Your task to perform on an android device: View the shopping cart on ebay.com. Search for "lg ultragear" on ebay.com, select the first entry, add it to the cart, then select checkout. Image 0: 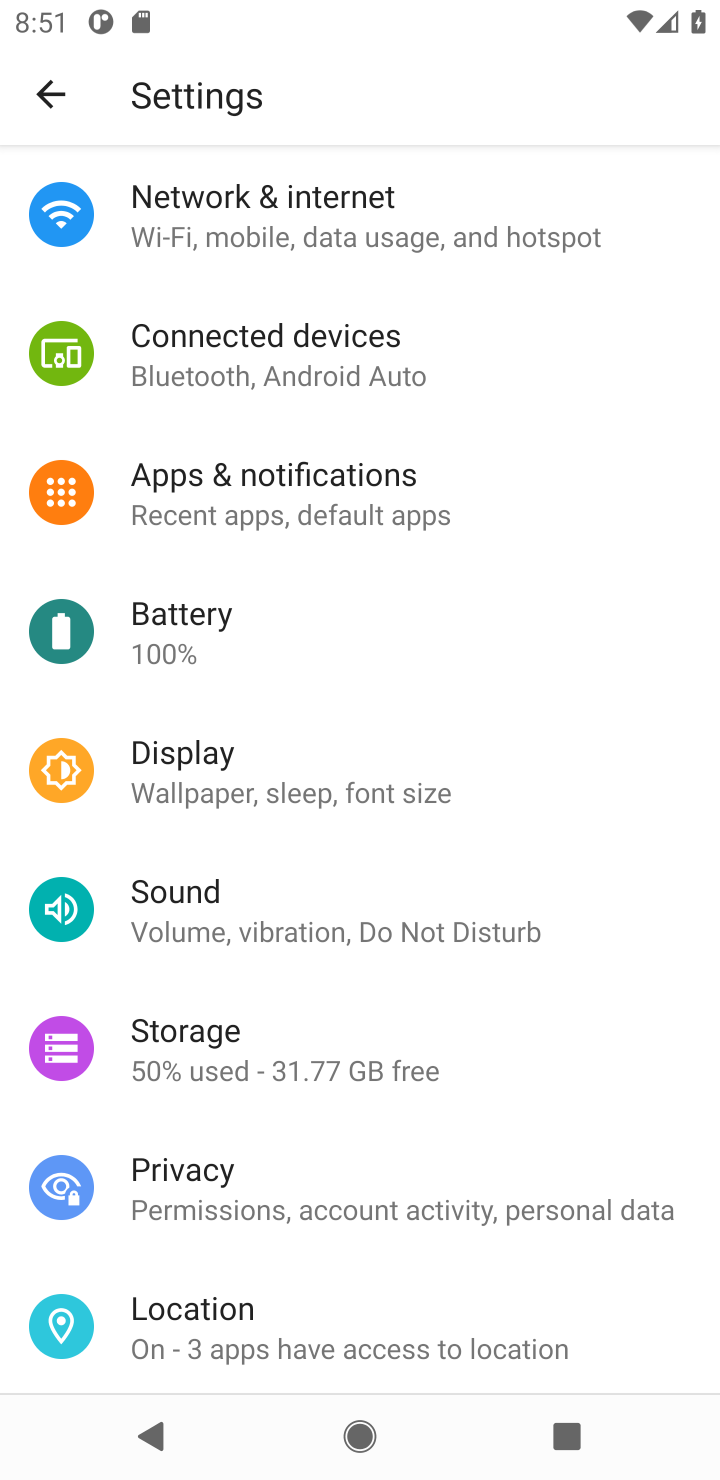
Step 0: press home button
Your task to perform on an android device: View the shopping cart on ebay.com. Search for "lg ultragear" on ebay.com, select the first entry, add it to the cart, then select checkout. Image 1: 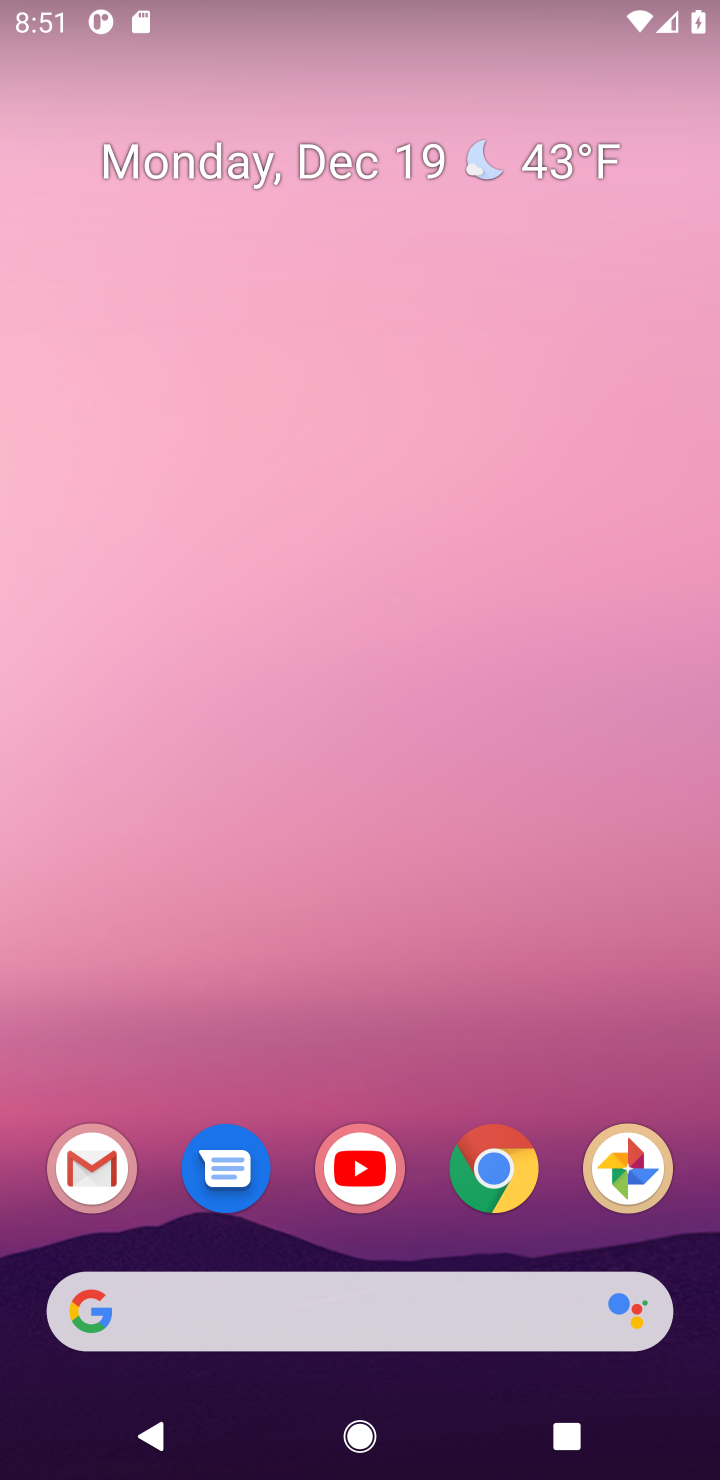
Step 1: click (506, 1176)
Your task to perform on an android device: View the shopping cart on ebay.com. Search for "lg ultragear" on ebay.com, select the first entry, add it to the cart, then select checkout. Image 2: 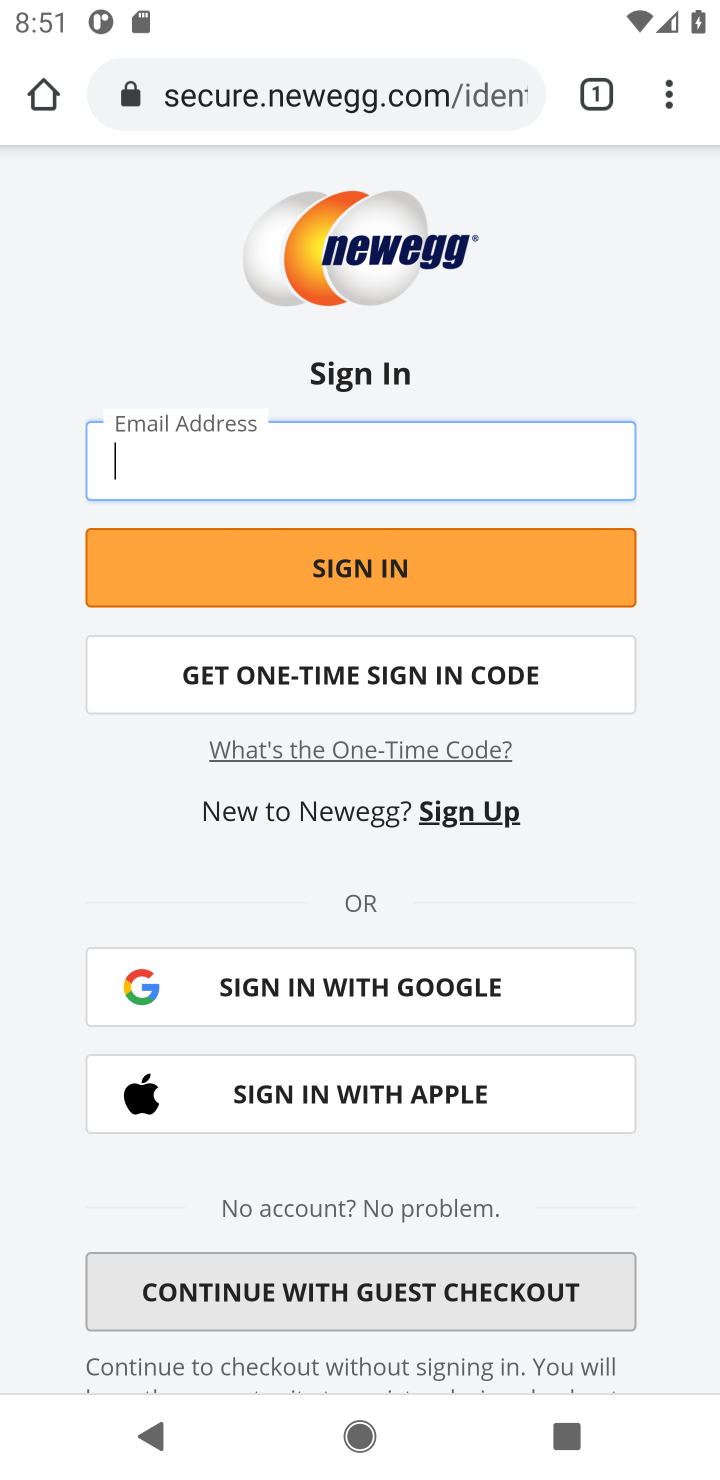
Step 2: click (278, 97)
Your task to perform on an android device: View the shopping cart on ebay.com. Search for "lg ultragear" on ebay.com, select the first entry, add it to the cart, then select checkout. Image 3: 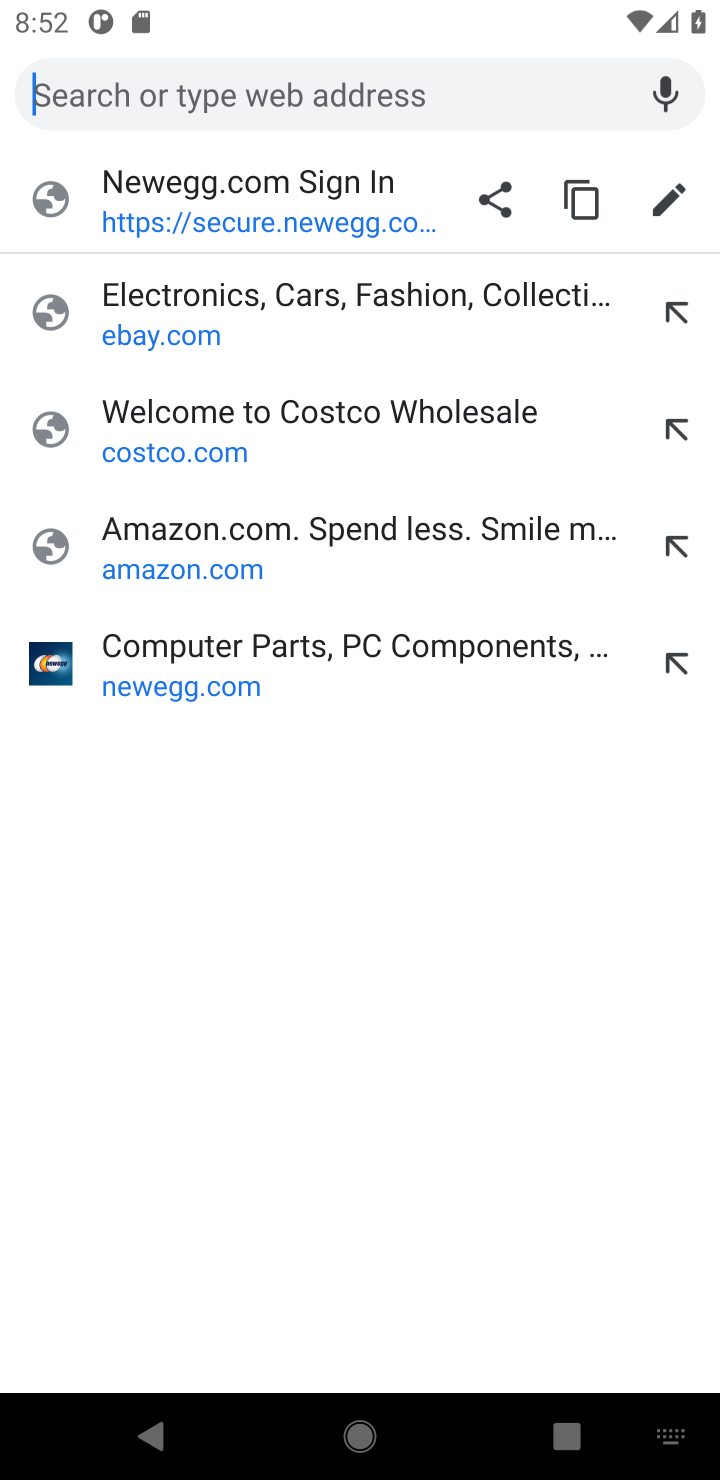
Step 3: click (116, 344)
Your task to perform on an android device: View the shopping cart on ebay.com. Search for "lg ultragear" on ebay.com, select the first entry, add it to the cart, then select checkout. Image 4: 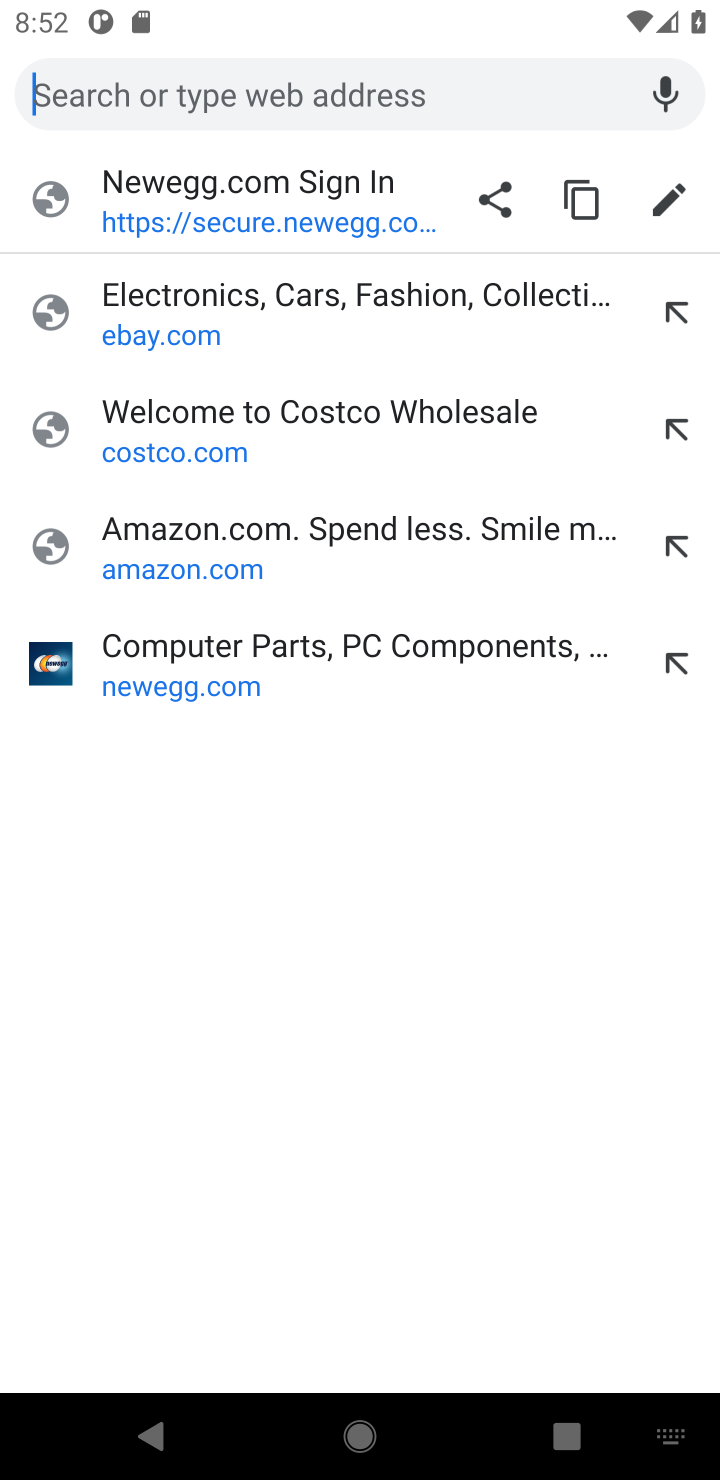
Step 4: click (151, 336)
Your task to perform on an android device: View the shopping cart on ebay.com. Search for "lg ultragear" on ebay.com, select the first entry, add it to the cart, then select checkout. Image 5: 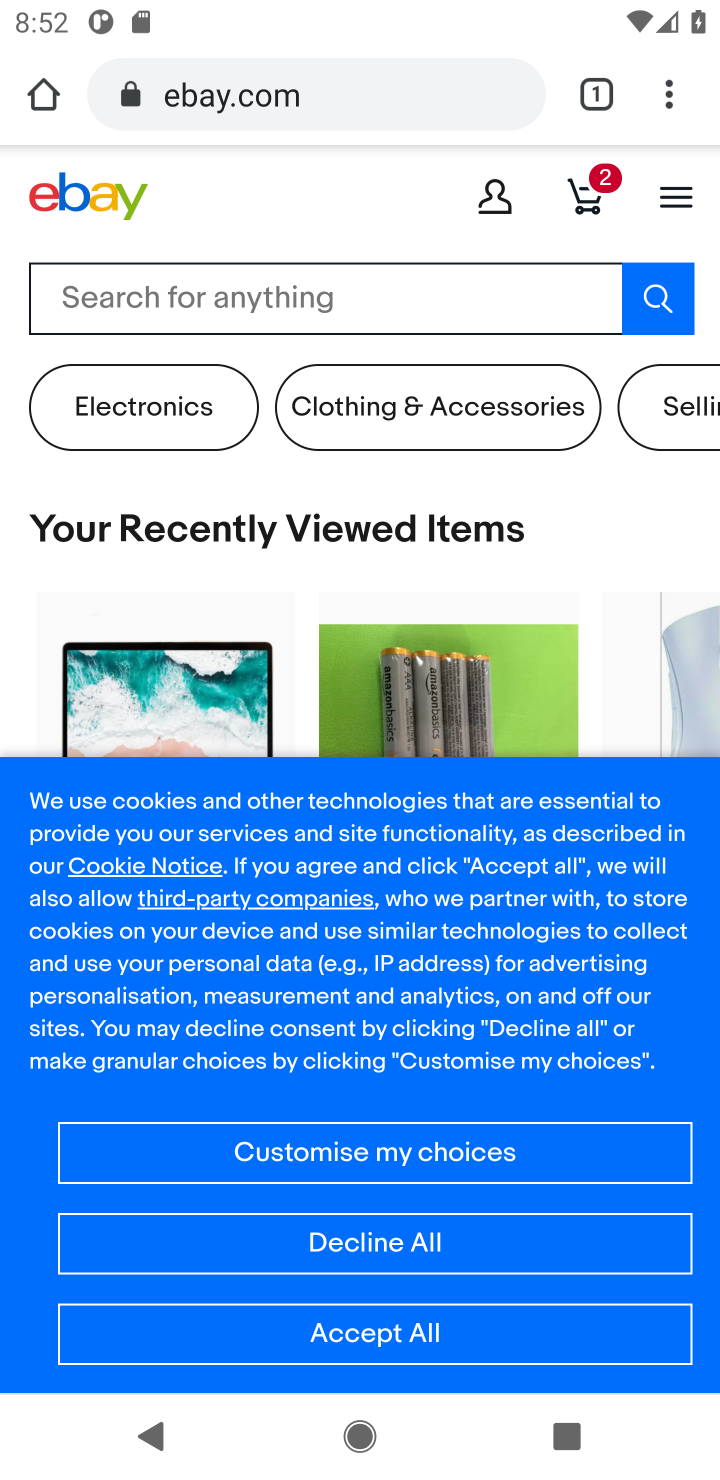
Step 5: click (578, 213)
Your task to perform on an android device: View the shopping cart on ebay.com. Search for "lg ultragear" on ebay.com, select the first entry, add it to the cart, then select checkout. Image 6: 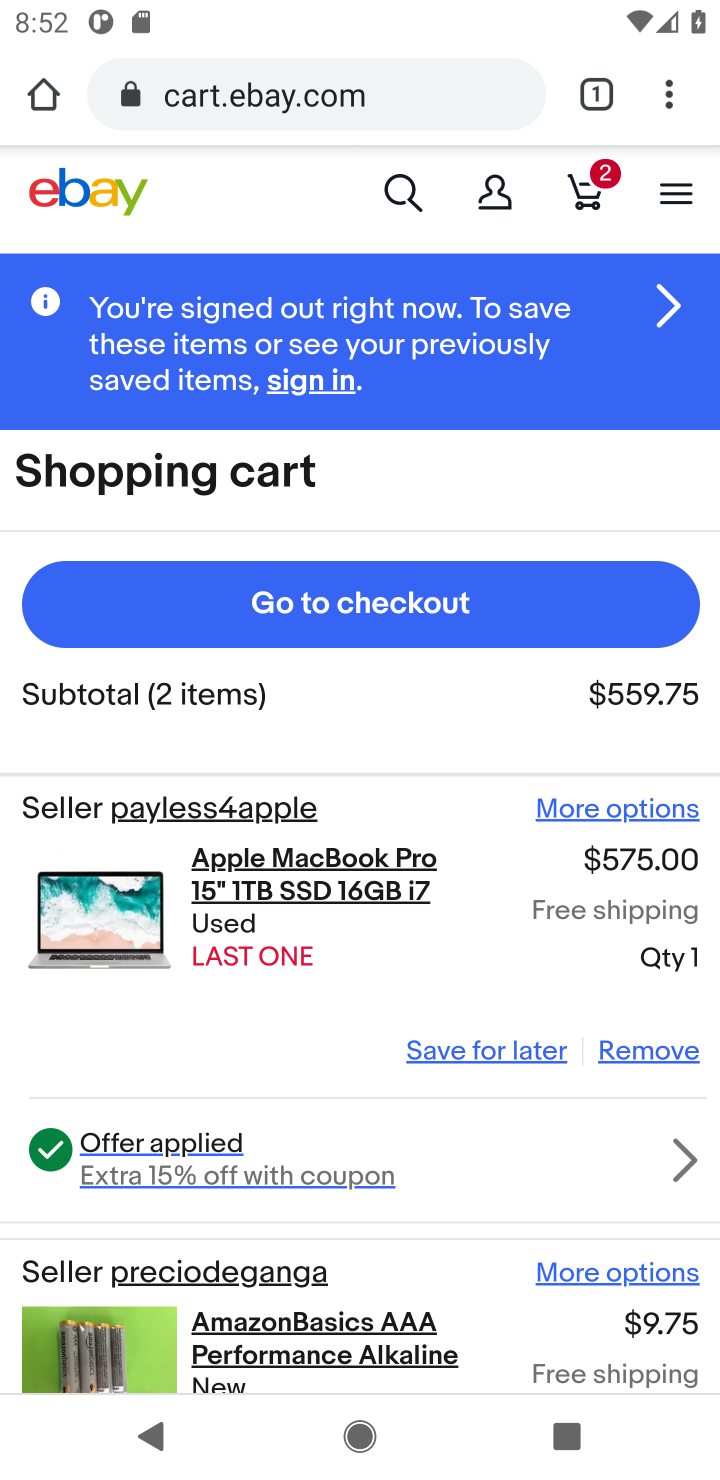
Step 6: click (399, 185)
Your task to perform on an android device: View the shopping cart on ebay.com. Search for "lg ultragear" on ebay.com, select the first entry, add it to the cart, then select checkout. Image 7: 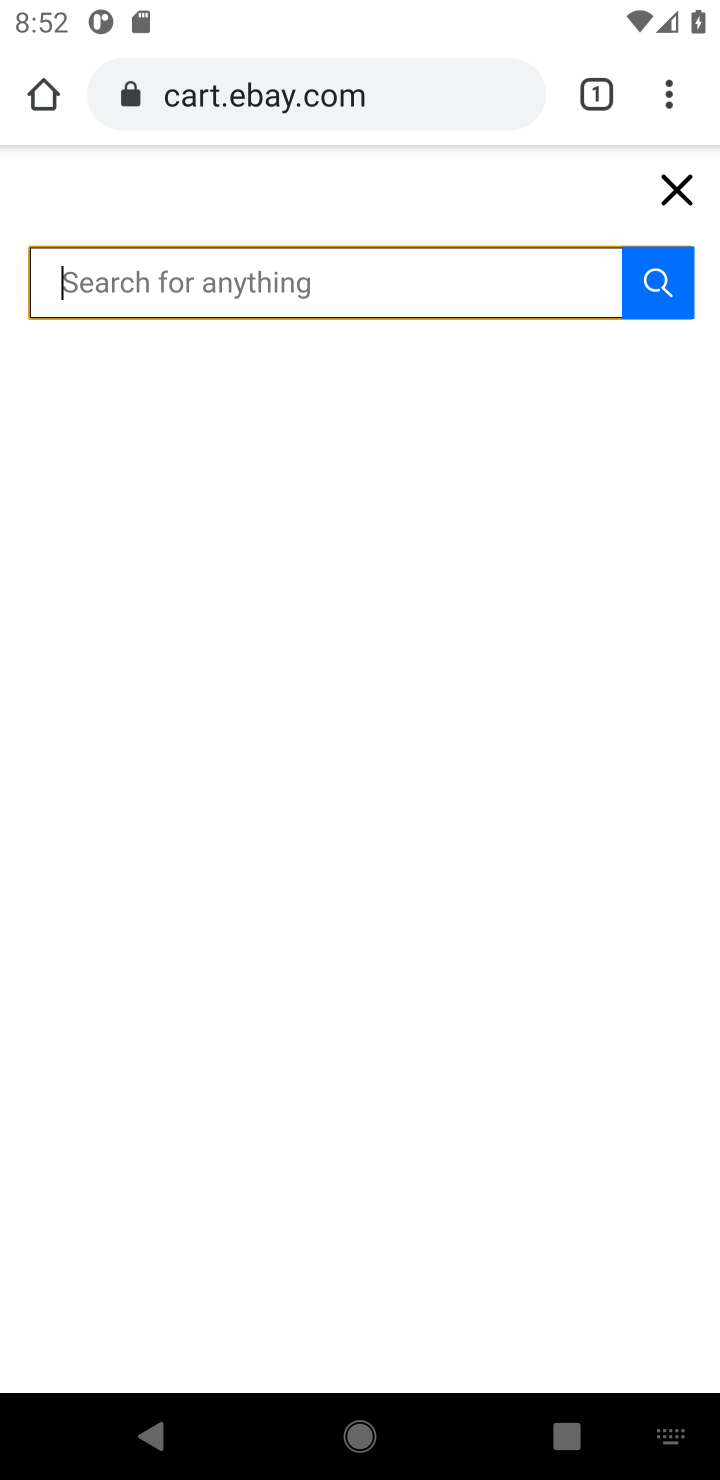
Step 7: type "lg ultragear"
Your task to perform on an android device: View the shopping cart on ebay.com. Search for "lg ultragear" on ebay.com, select the first entry, add it to the cart, then select checkout. Image 8: 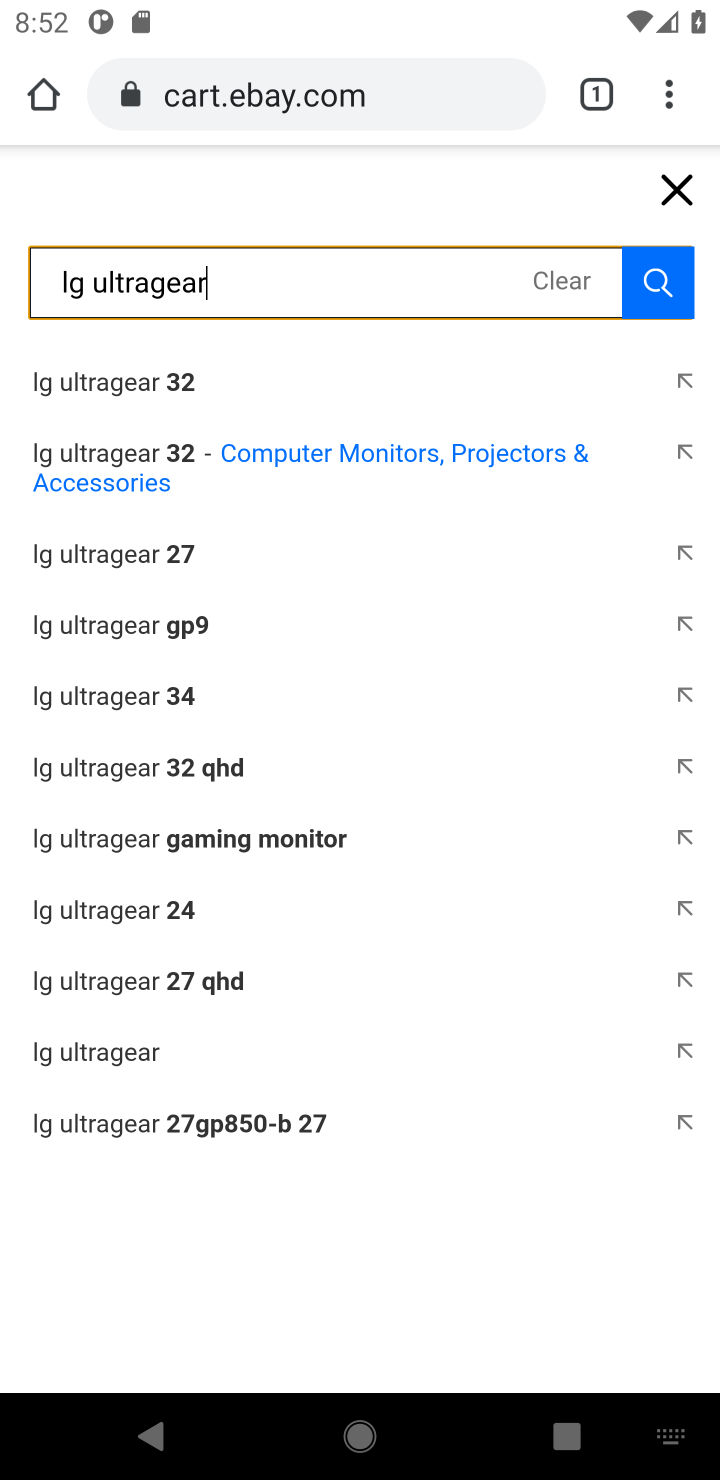
Step 8: click (76, 1050)
Your task to perform on an android device: View the shopping cart on ebay.com. Search for "lg ultragear" on ebay.com, select the first entry, add it to the cart, then select checkout. Image 9: 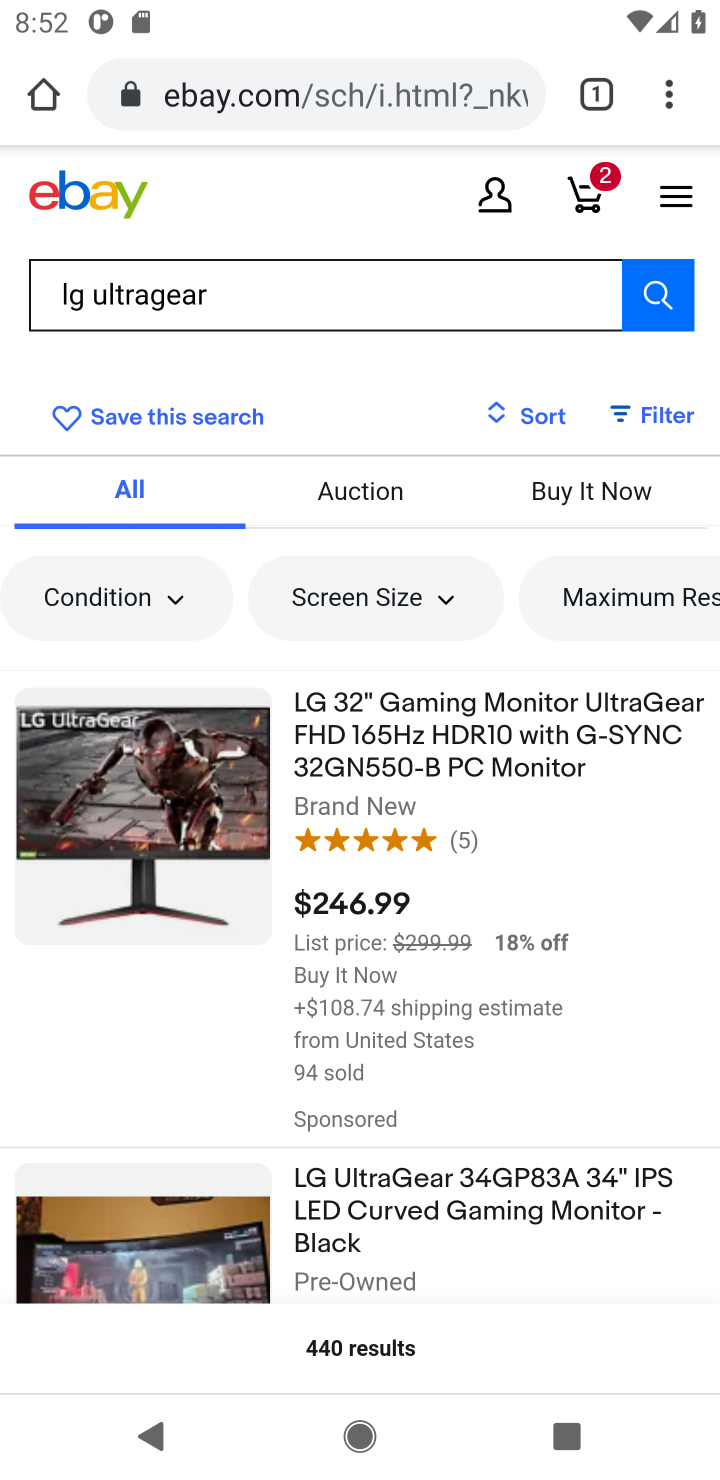
Step 9: click (364, 763)
Your task to perform on an android device: View the shopping cart on ebay.com. Search for "lg ultragear" on ebay.com, select the first entry, add it to the cart, then select checkout. Image 10: 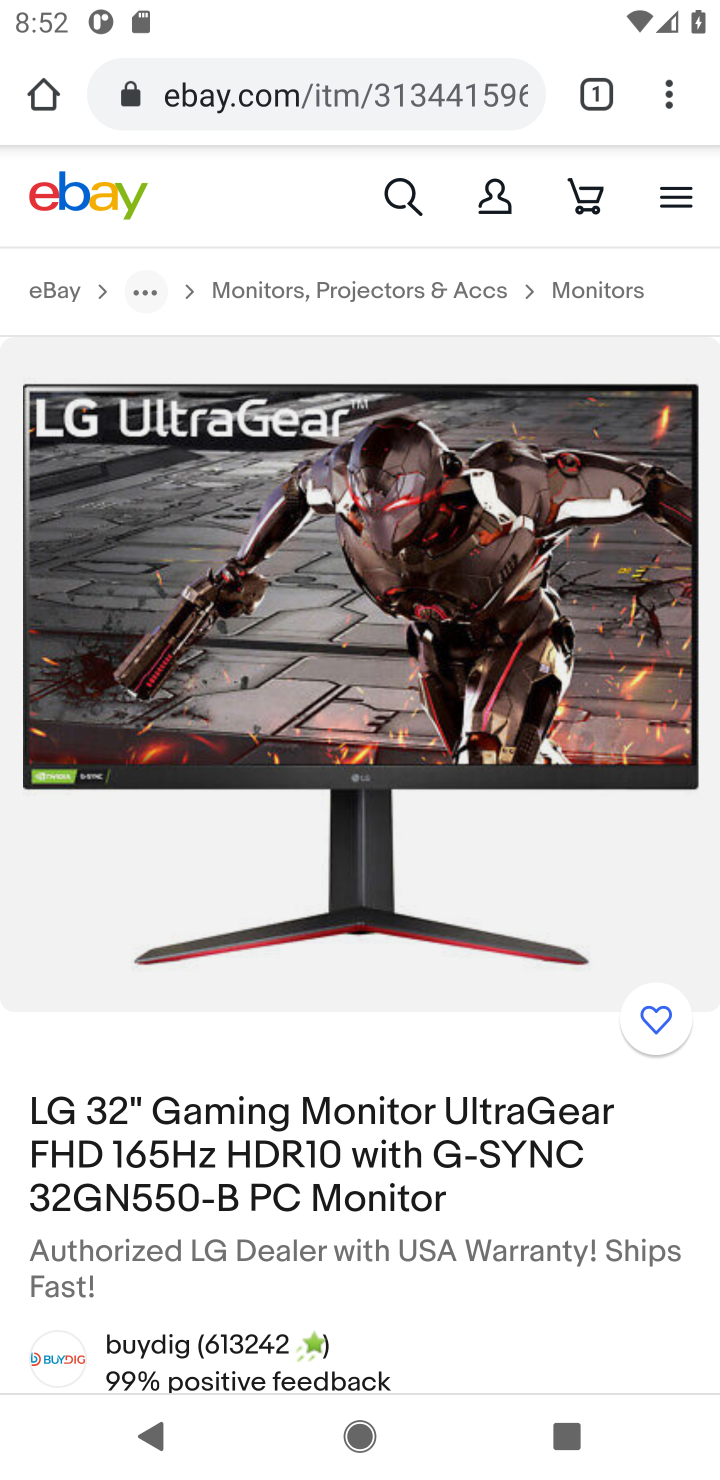
Step 10: drag from (201, 980) to (224, 518)
Your task to perform on an android device: View the shopping cart on ebay.com. Search for "lg ultragear" on ebay.com, select the first entry, add it to the cart, then select checkout. Image 11: 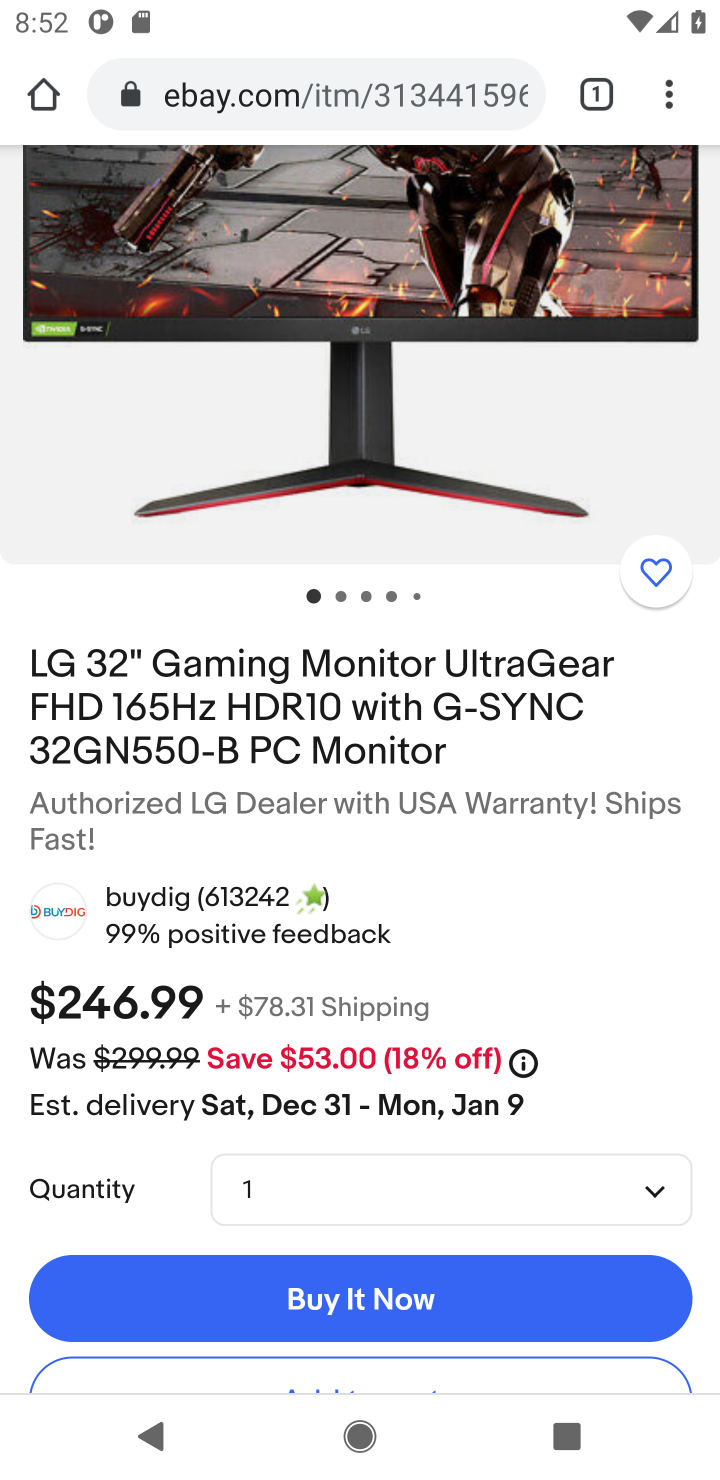
Step 11: drag from (233, 930) to (249, 647)
Your task to perform on an android device: View the shopping cart on ebay.com. Search for "lg ultragear" on ebay.com, select the first entry, add it to the cart, then select checkout. Image 12: 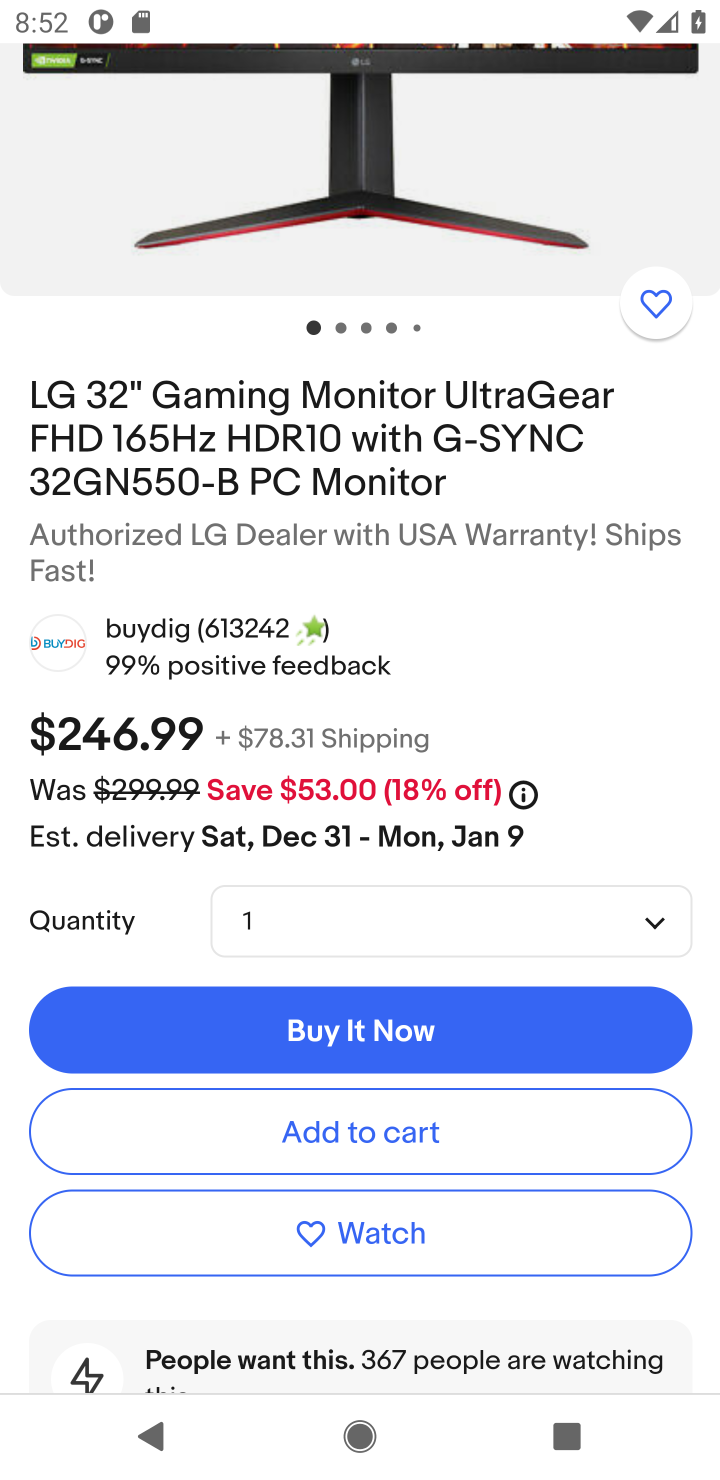
Step 12: click (268, 1141)
Your task to perform on an android device: View the shopping cart on ebay.com. Search for "lg ultragear" on ebay.com, select the first entry, add it to the cart, then select checkout. Image 13: 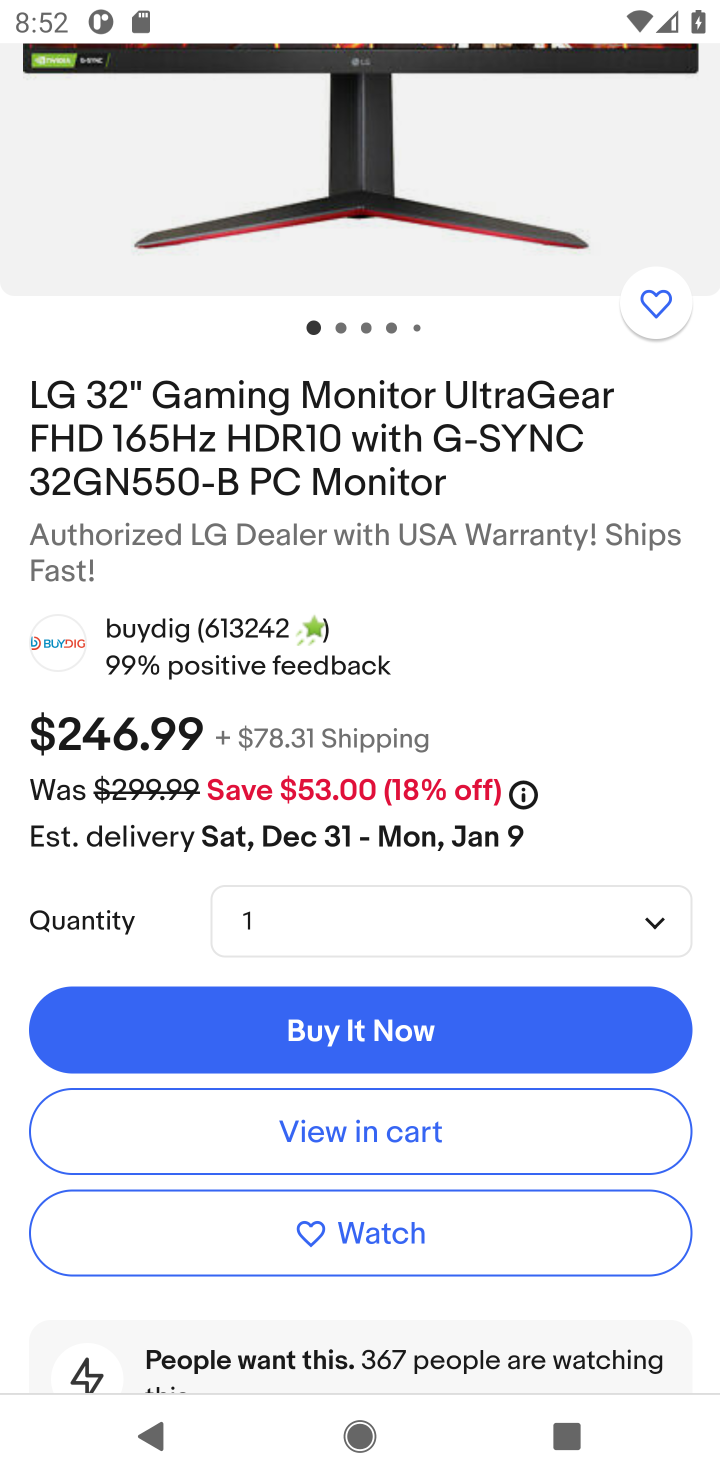
Step 13: click (298, 1139)
Your task to perform on an android device: View the shopping cart on ebay.com. Search for "lg ultragear" on ebay.com, select the first entry, add it to the cart, then select checkout. Image 14: 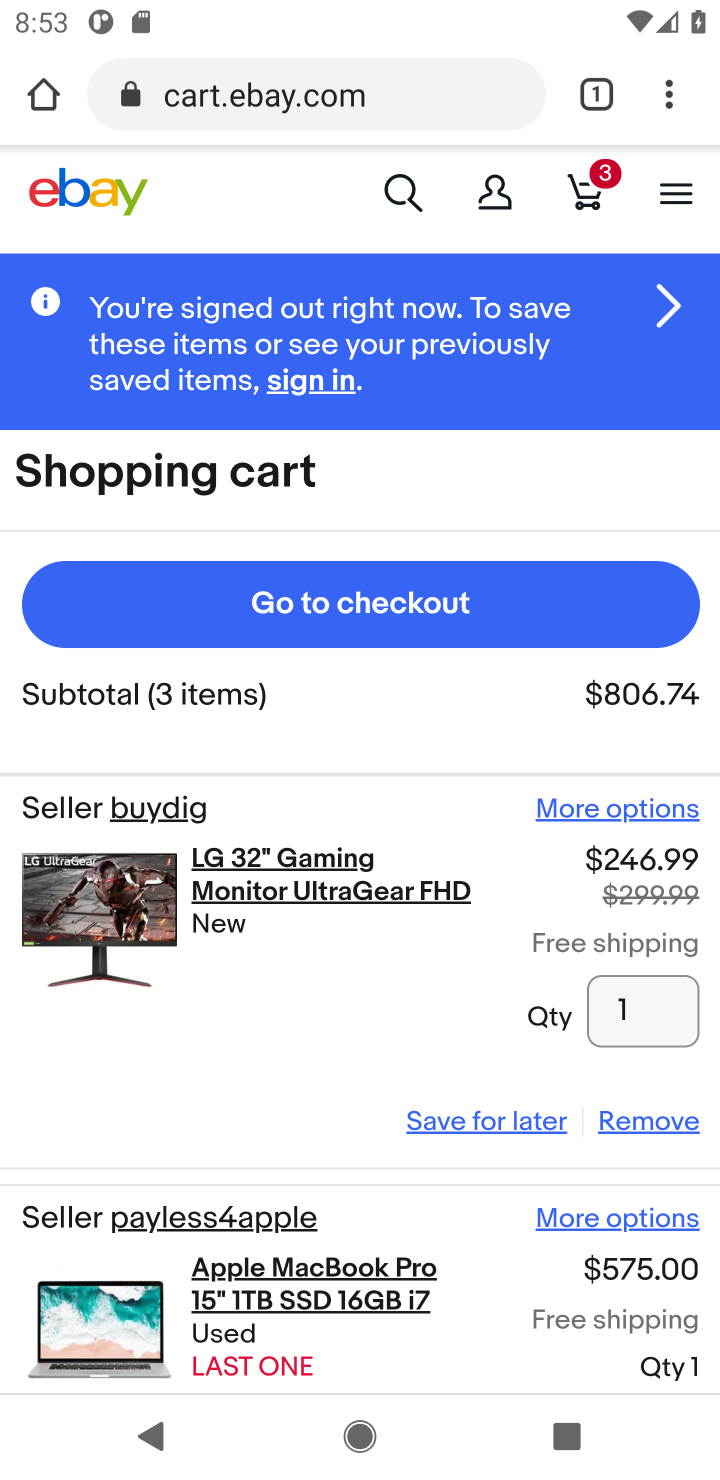
Step 14: click (346, 617)
Your task to perform on an android device: View the shopping cart on ebay.com. Search for "lg ultragear" on ebay.com, select the first entry, add it to the cart, then select checkout. Image 15: 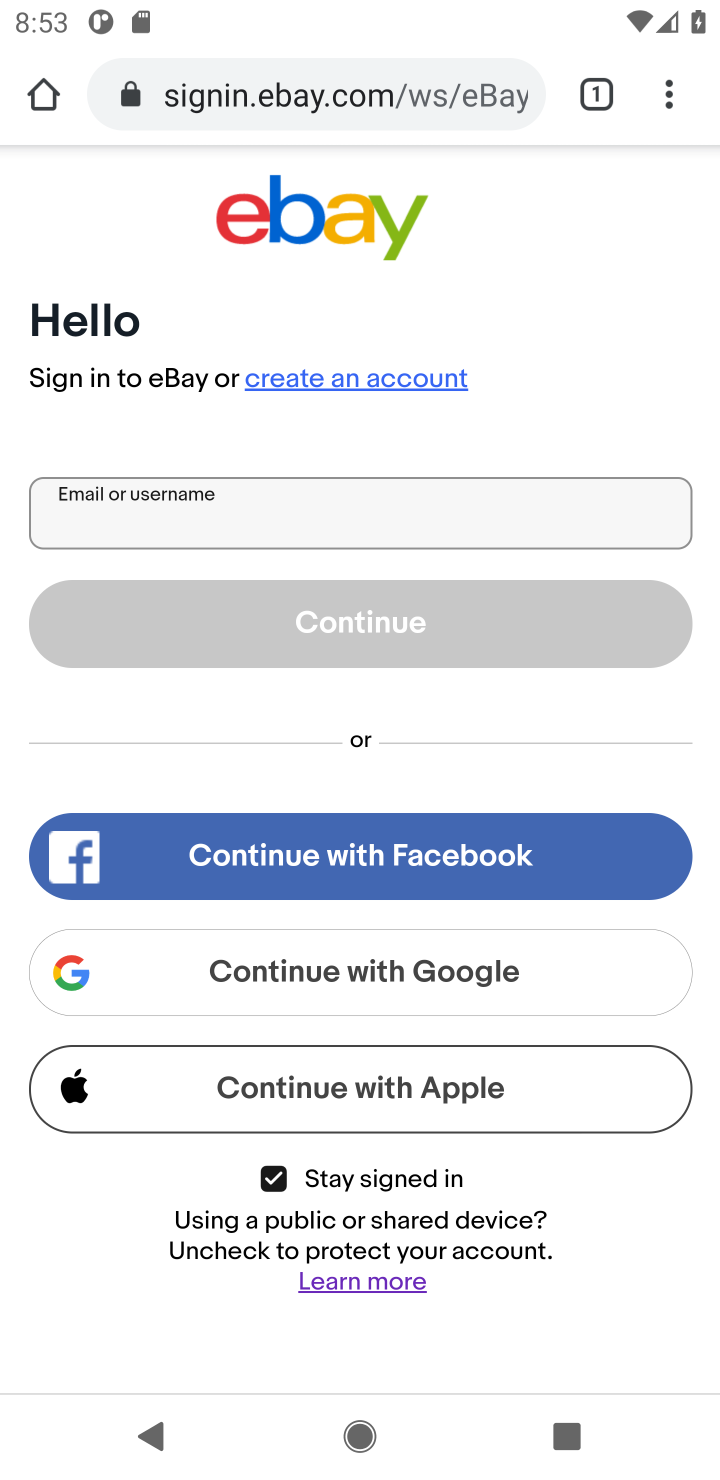
Step 15: task complete